Your task to perform on an android device: turn off javascript in the chrome app Image 0: 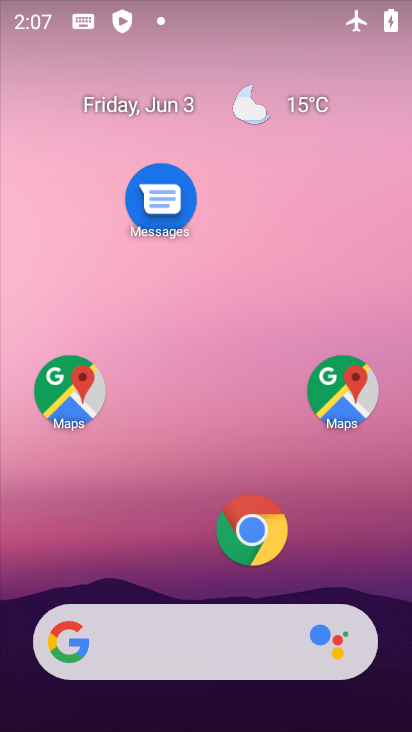
Step 0: drag from (180, 581) to (203, 227)
Your task to perform on an android device: turn off javascript in the chrome app Image 1: 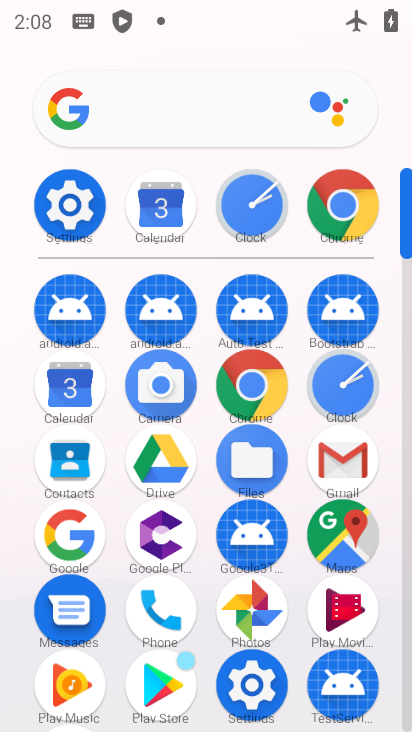
Step 1: click (343, 209)
Your task to perform on an android device: turn off javascript in the chrome app Image 2: 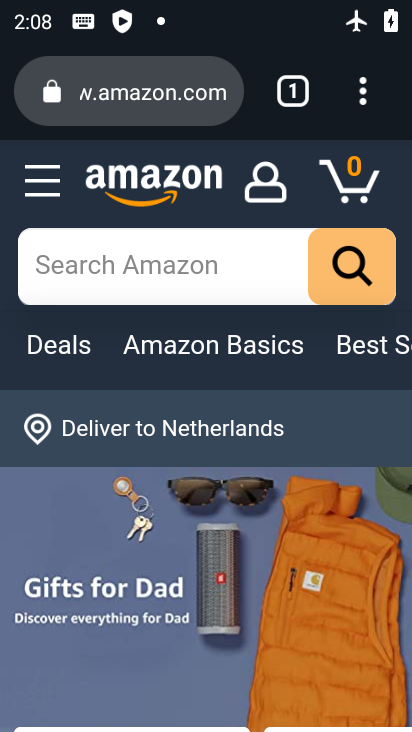
Step 2: click (363, 102)
Your task to perform on an android device: turn off javascript in the chrome app Image 3: 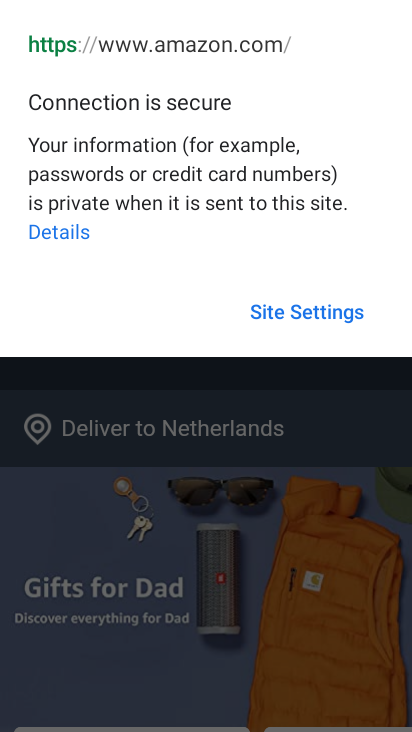
Step 3: click (324, 419)
Your task to perform on an android device: turn off javascript in the chrome app Image 4: 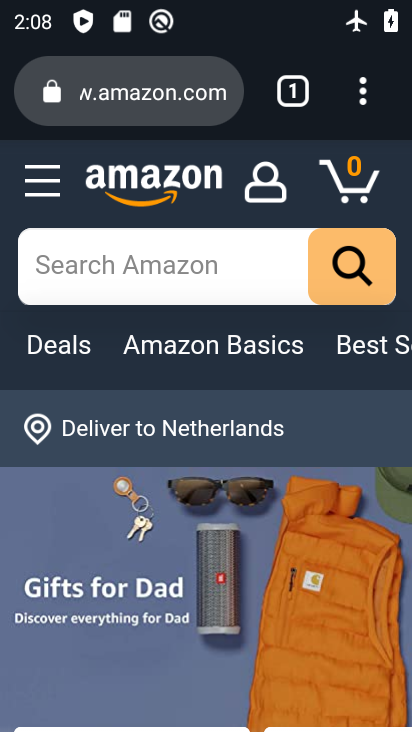
Step 4: click (359, 83)
Your task to perform on an android device: turn off javascript in the chrome app Image 5: 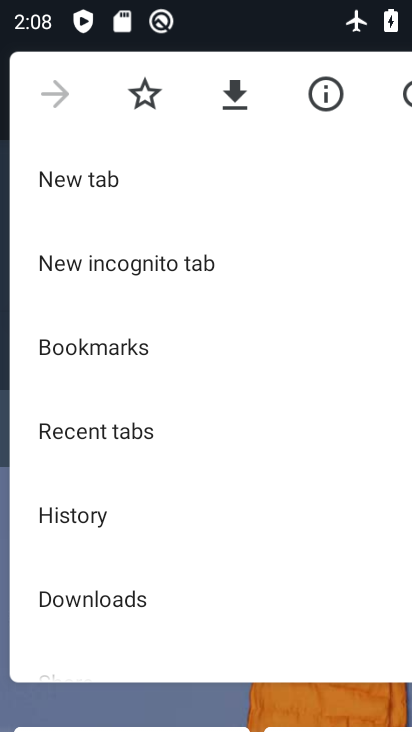
Step 5: drag from (209, 533) to (209, 344)
Your task to perform on an android device: turn off javascript in the chrome app Image 6: 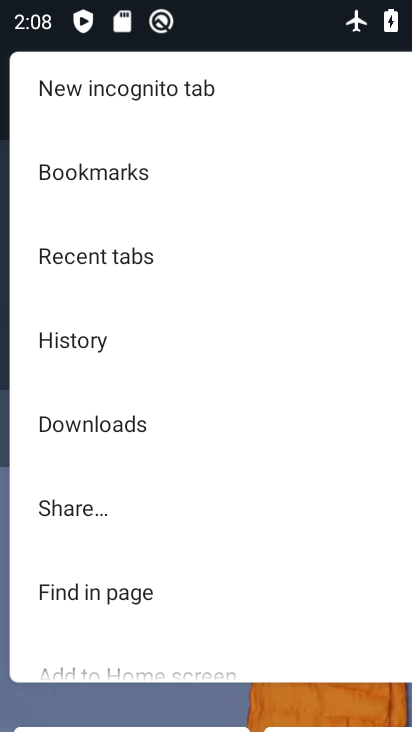
Step 6: drag from (199, 528) to (202, 362)
Your task to perform on an android device: turn off javascript in the chrome app Image 7: 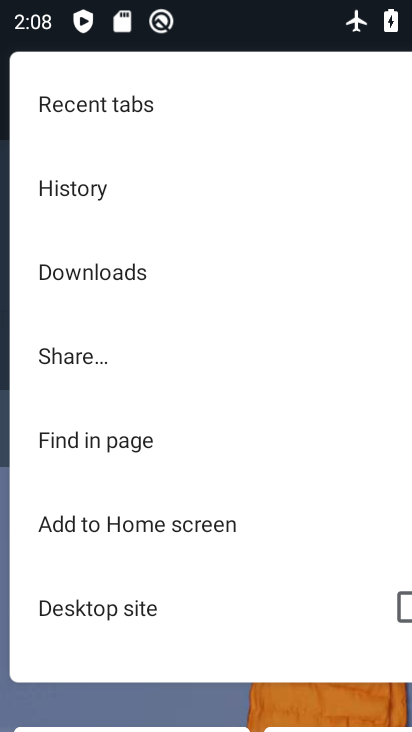
Step 7: drag from (228, 585) to (239, 386)
Your task to perform on an android device: turn off javascript in the chrome app Image 8: 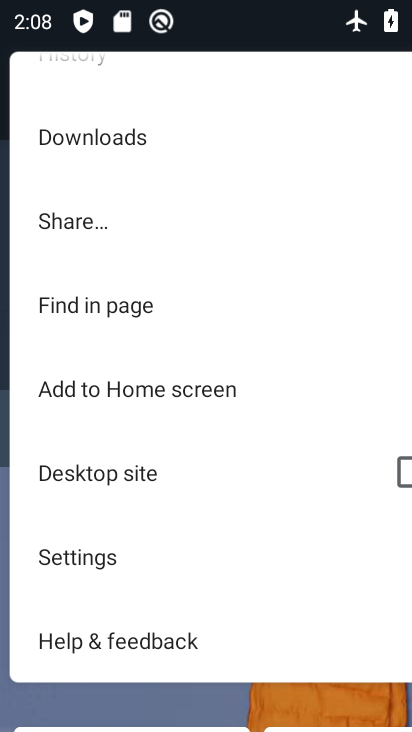
Step 8: click (107, 573)
Your task to perform on an android device: turn off javascript in the chrome app Image 9: 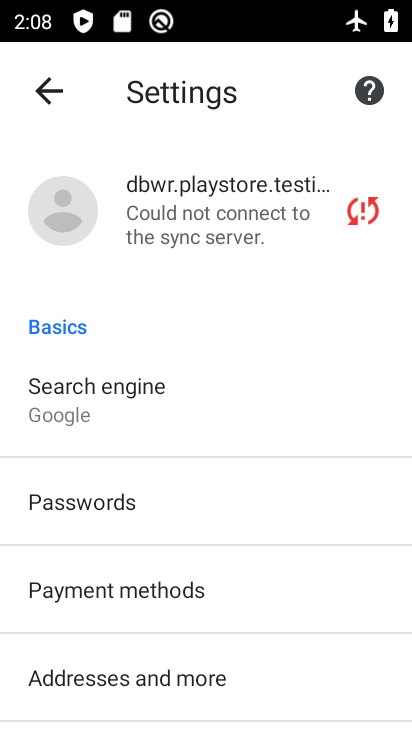
Step 9: drag from (98, 658) to (157, 312)
Your task to perform on an android device: turn off javascript in the chrome app Image 10: 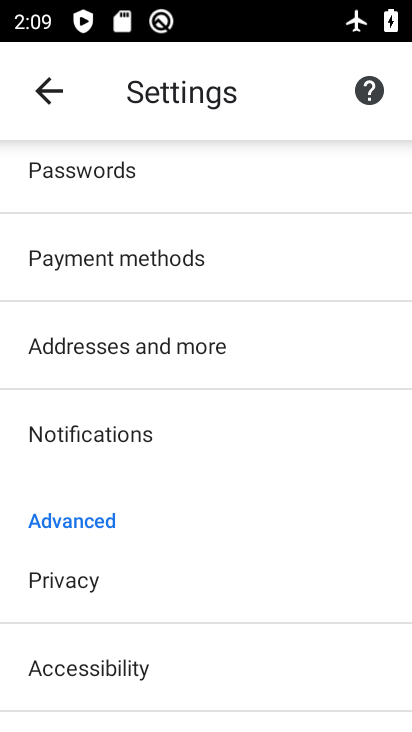
Step 10: drag from (223, 523) to (228, 239)
Your task to perform on an android device: turn off javascript in the chrome app Image 11: 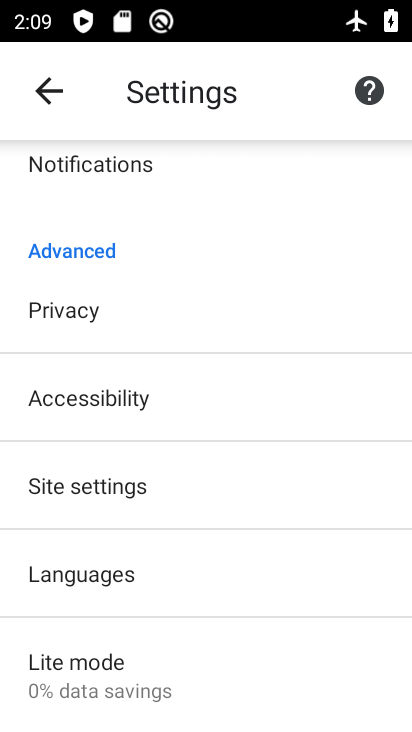
Step 11: click (119, 482)
Your task to perform on an android device: turn off javascript in the chrome app Image 12: 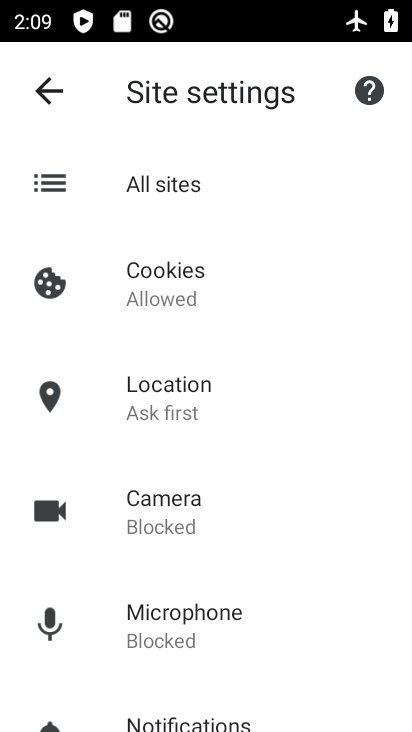
Step 12: drag from (227, 562) to (231, 413)
Your task to perform on an android device: turn off javascript in the chrome app Image 13: 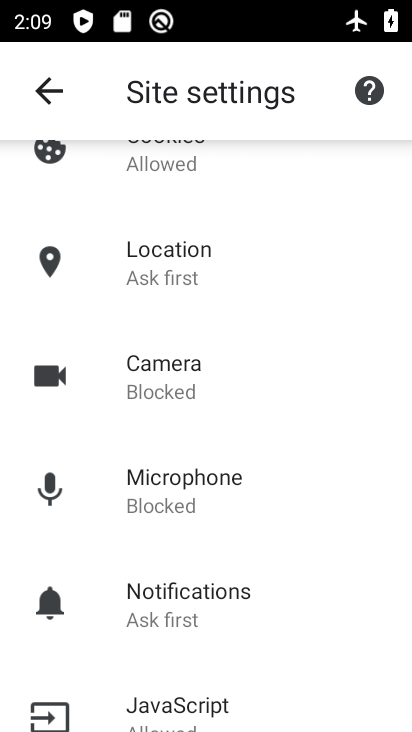
Step 13: click (158, 709)
Your task to perform on an android device: turn off javascript in the chrome app Image 14: 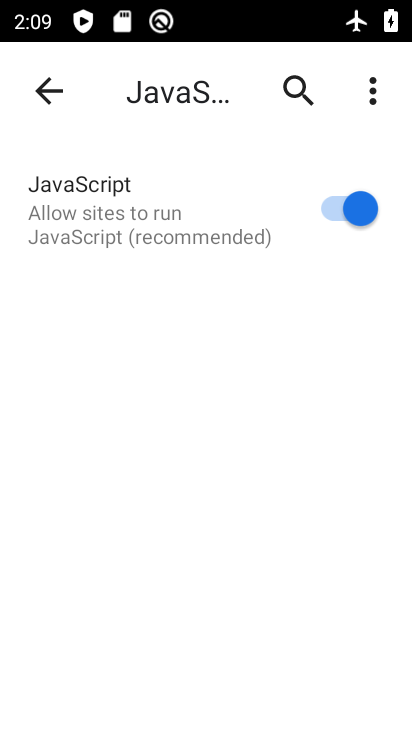
Step 14: click (347, 208)
Your task to perform on an android device: turn off javascript in the chrome app Image 15: 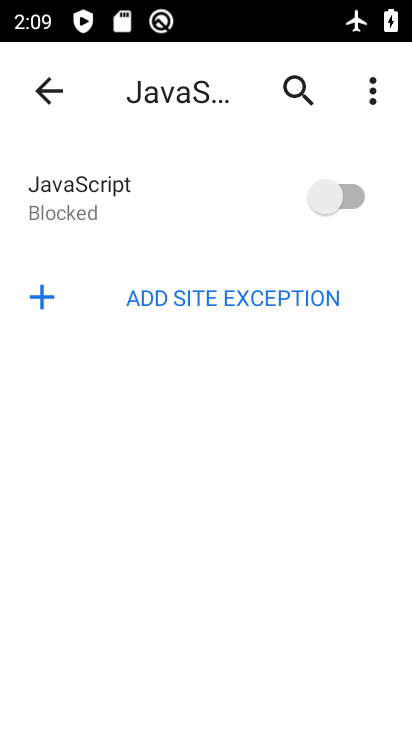
Step 15: task complete